Your task to perform on an android device: Search for Italian restaurants on Maps Image 0: 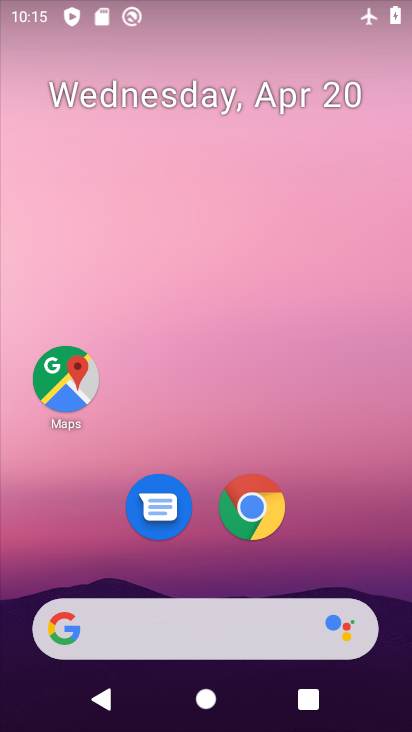
Step 0: click (69, 376)
Your task to perform on an android device: Search for Italian restaurants on Maps Image 1: 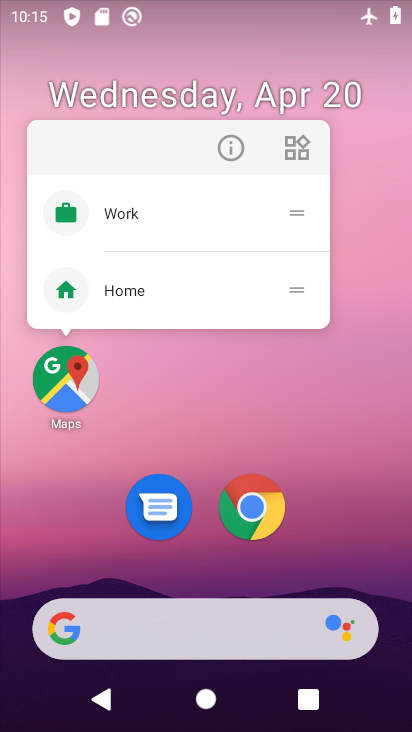
Step 1: click (231, 148)
Your task to perform on an android device: Search for Italian restaurants on Maps Image 2: 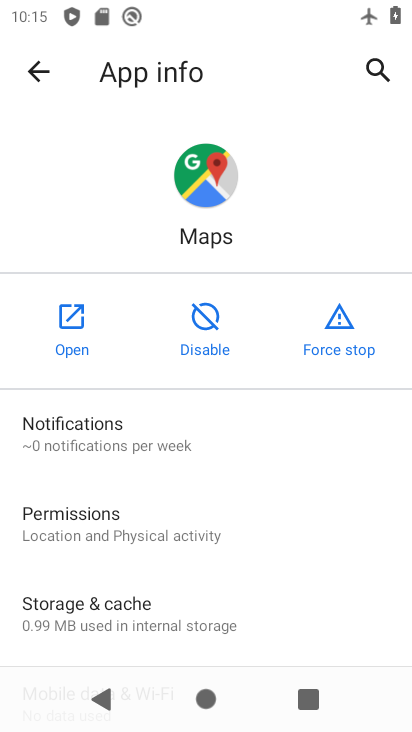
Step 2: click (95, 353)
Your task to perform on an android device: Search for Italian restaurants on Maps Image 3: 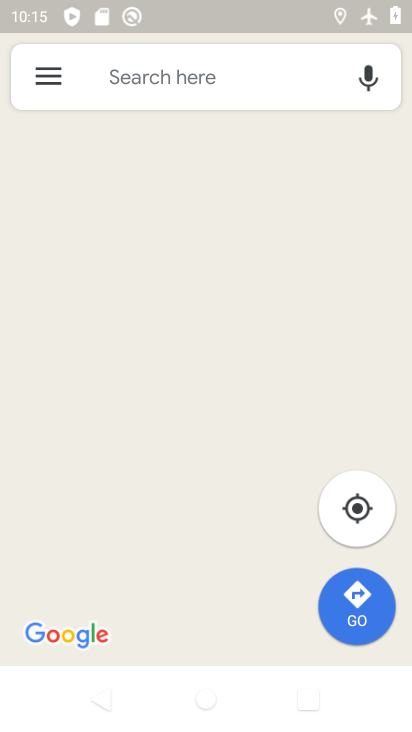
Step 3: click (188, 70)
Your task to perform on an android device: Search for Italian restaurants on Maps Image 4: 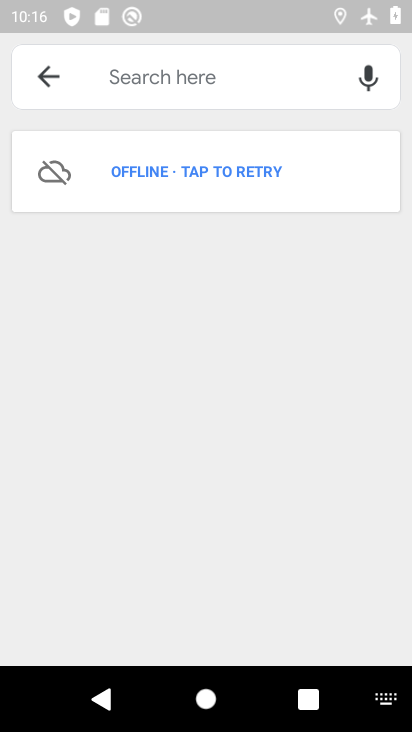
Step 4: type "Italian restaurants"
Your task to perform on an android device: Search for Italian restaurants on Maps Image 5: 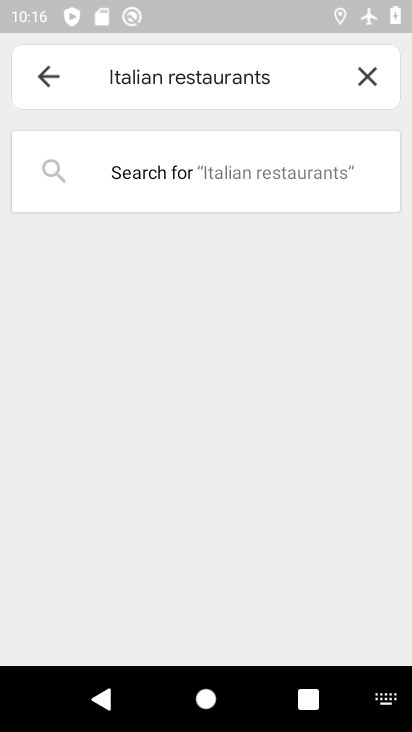
Step 5: click (242, 167)
Your task to perform on an android device: Search for Italian restaurants on Maps Image 6: 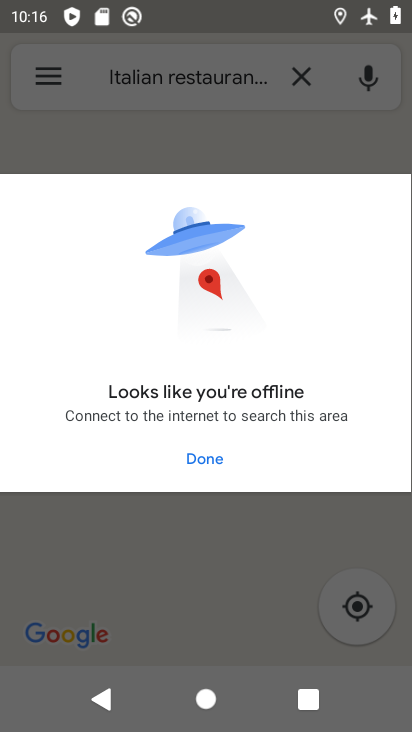
Step 6: task complete